Your task to perform on an android device: add a contact in the contacts app Image 0: 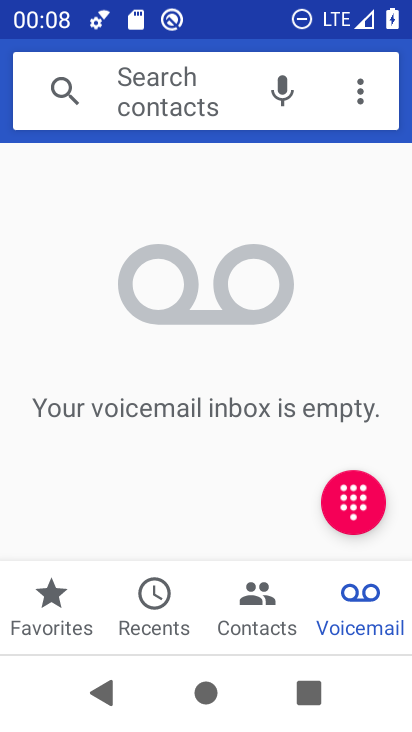
Step 0: press home button
Your task to perform on an android device: add a contact in the contacts app Image 1: 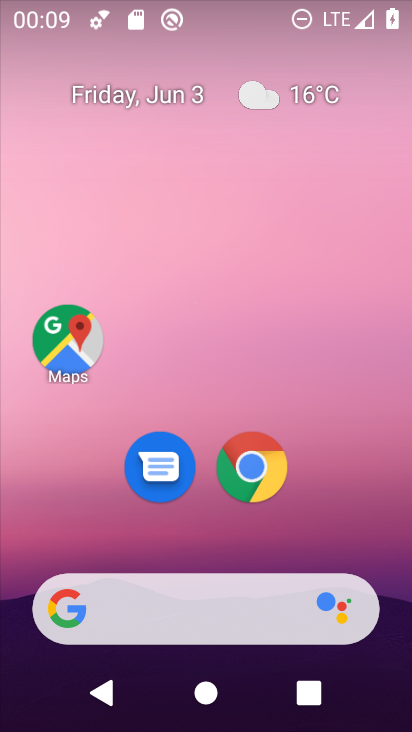
Step 1: drag from (398, 615) to (349, 211)
Your task to perform on an android device: add a contact in the contacts app Image 2: 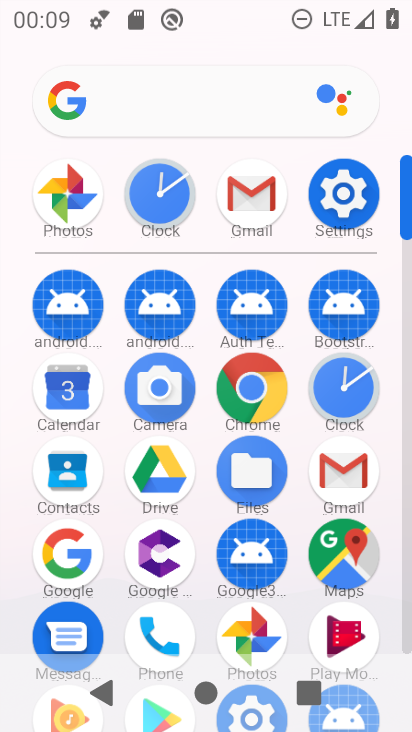
Step 2: click (407, 631)
Your task to perform on an android device: add a contact in the contacts app Image 3: 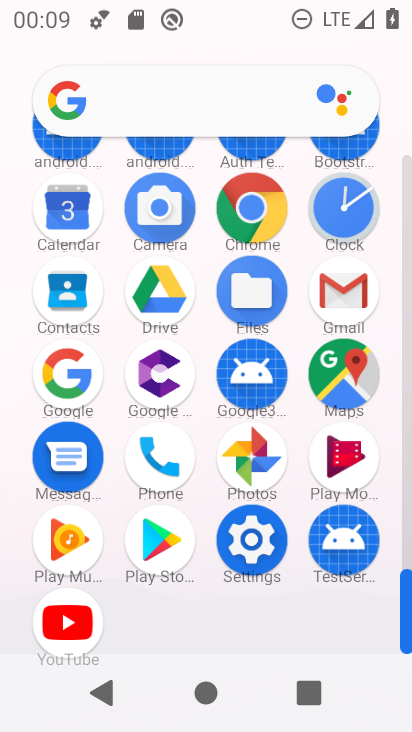
Step 3: click (71, 210)
Your task to perform on an android device: add a contact in the contacts app Image 4: 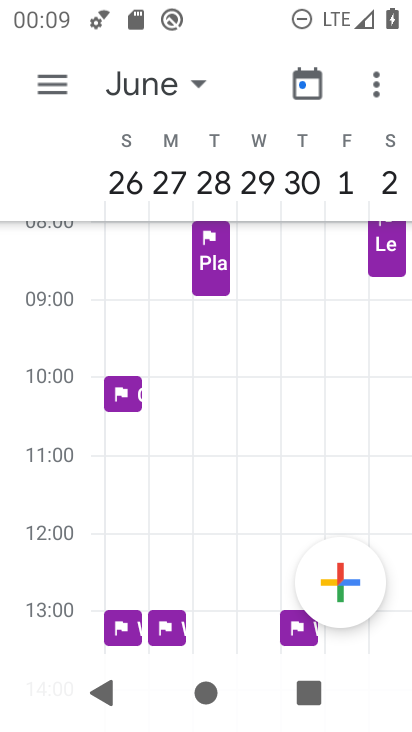
Step 4: press home button
Your task to perform on an android device: add a contact in the contacts app Image 5: 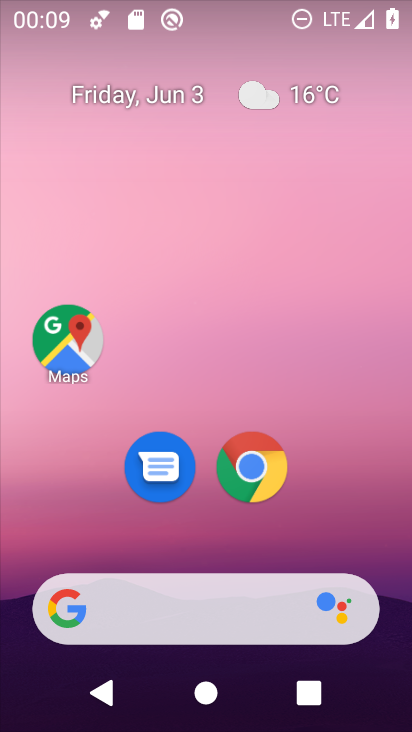
Step 5: drag from (372, 541) to (302, 148)
Your task to perform on an android device: add a contact in the contacts app Image 6: 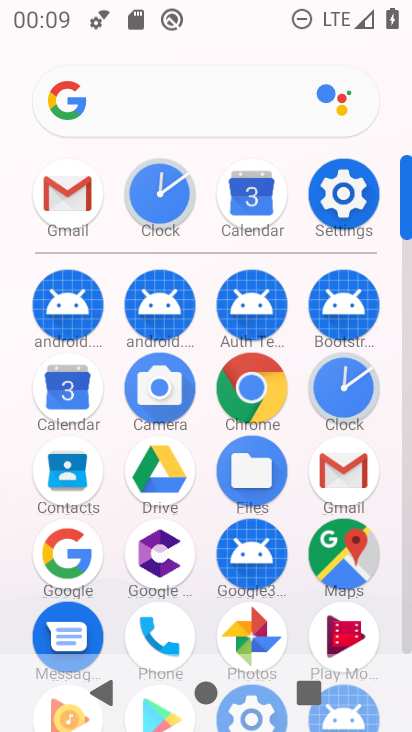
Step 6: click (68, 469)
Your task to perform on an android device: add a contact in the contacts app Image 7: 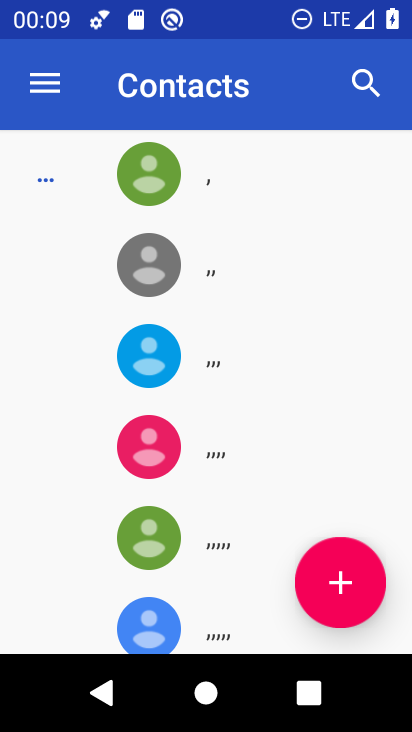
Step 7: click (342, 580)
Your task to perform on an android device: add a contact in the contacts app Image 8: 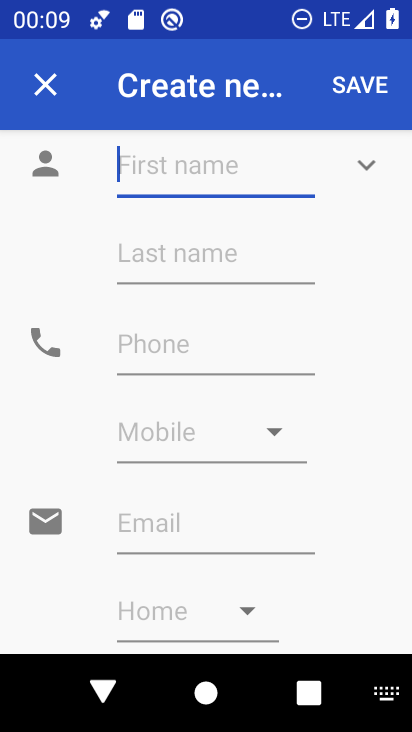
Step 8: type "kjhdgsgdgfh"
Your task to perform on an android device: add a contact in the contacts app Image 9: 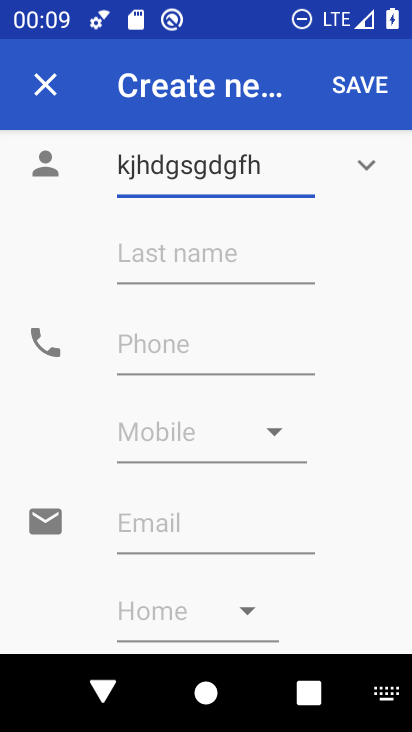
Step 9: click (286, 355)
Your task to perform on an android device: add a contact in the contacts app Image 10: 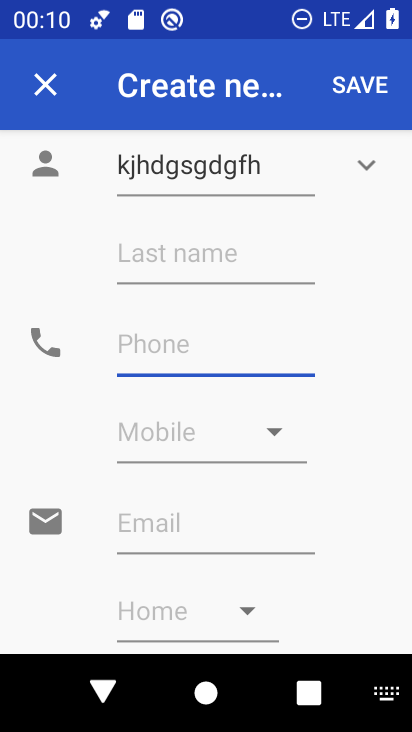
Step 10: type "7865432456"
Your task to perform on an android device: add a contact in the contacts app Image 11: 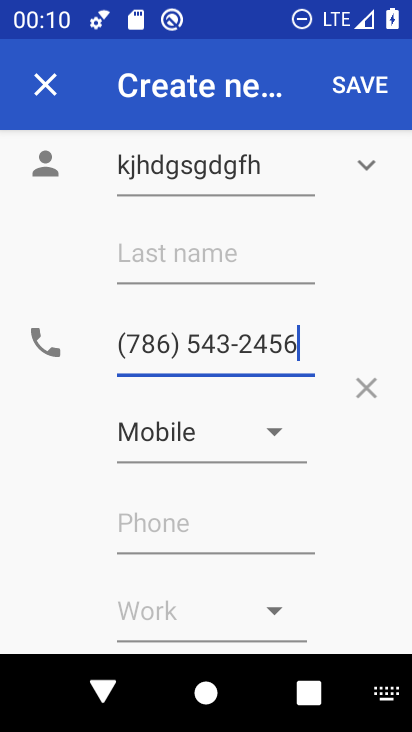
Step 11: click (356, 91)
Your task to perform on an android device: add a contact in the contacts app Image 12: 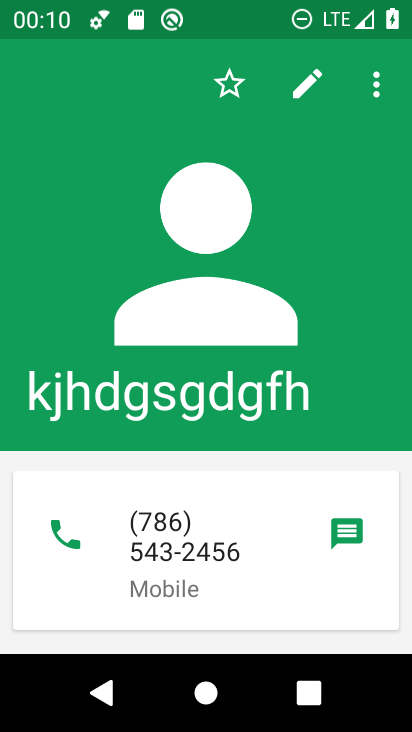
Step 12: task complete